Your task to perform on an android device: See recent photos Image 0: 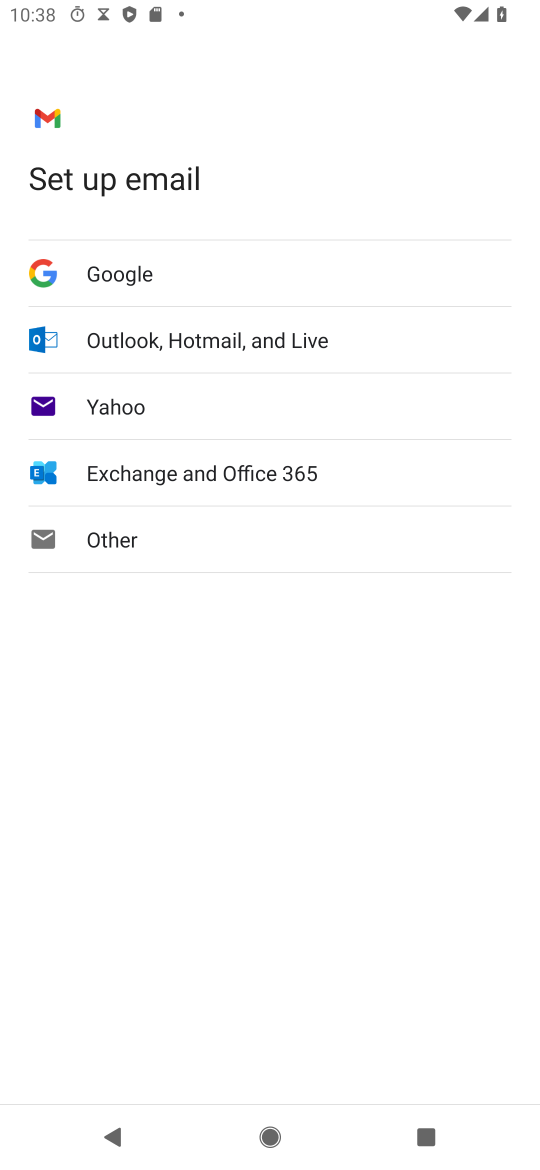
Step 0: press back button
Your task to perform on an android device: See recent photos Image 1: 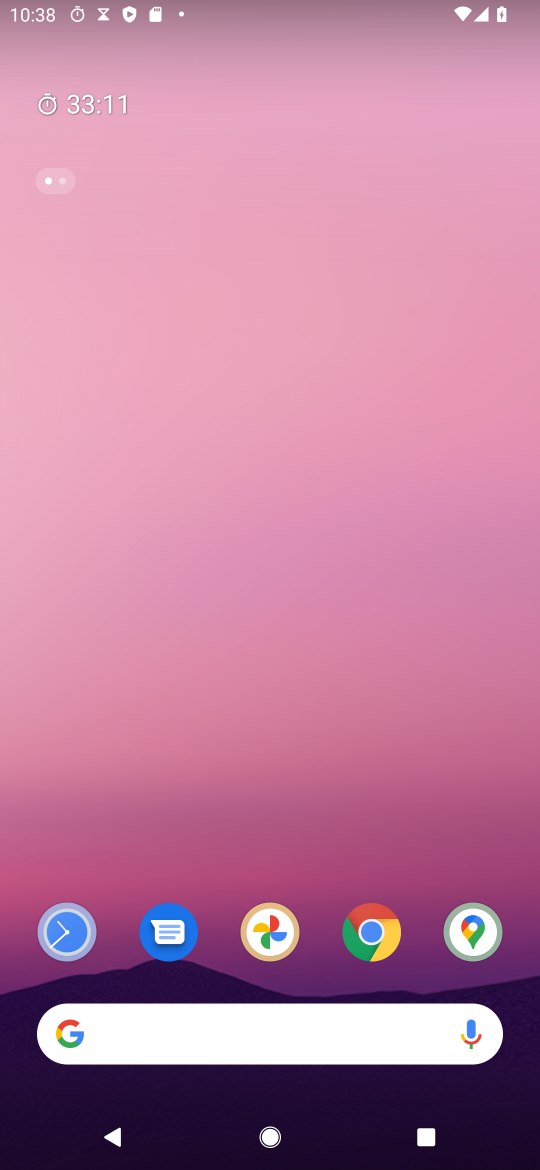
Step 1: click (280, 927)
Your task to perform on an android device: See recent photos Image 2: 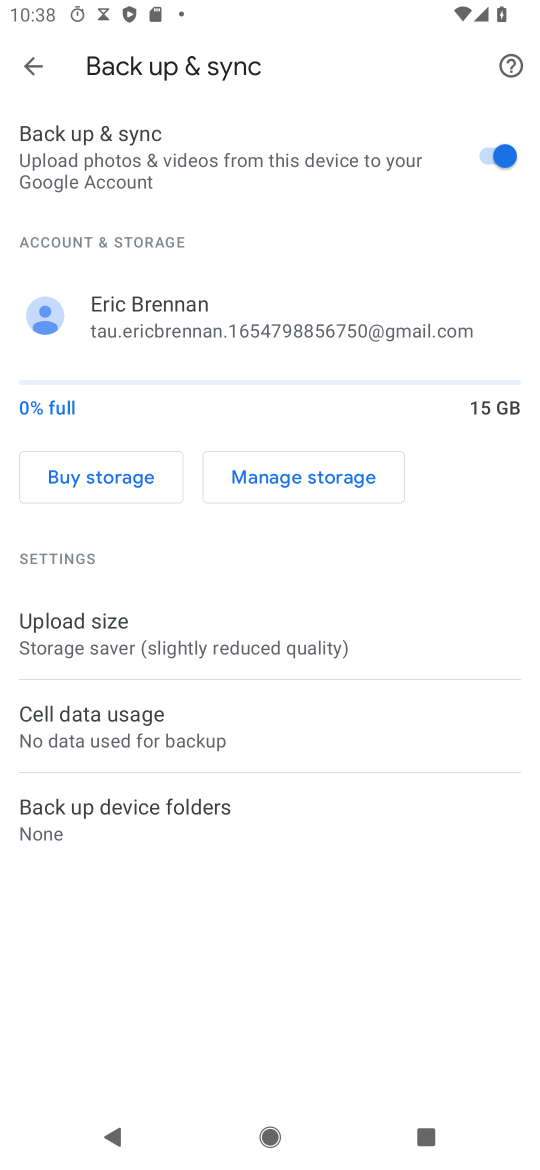
Step 2: click (39, 64)
Your task to perform on an android device: See recent photos Image 3: 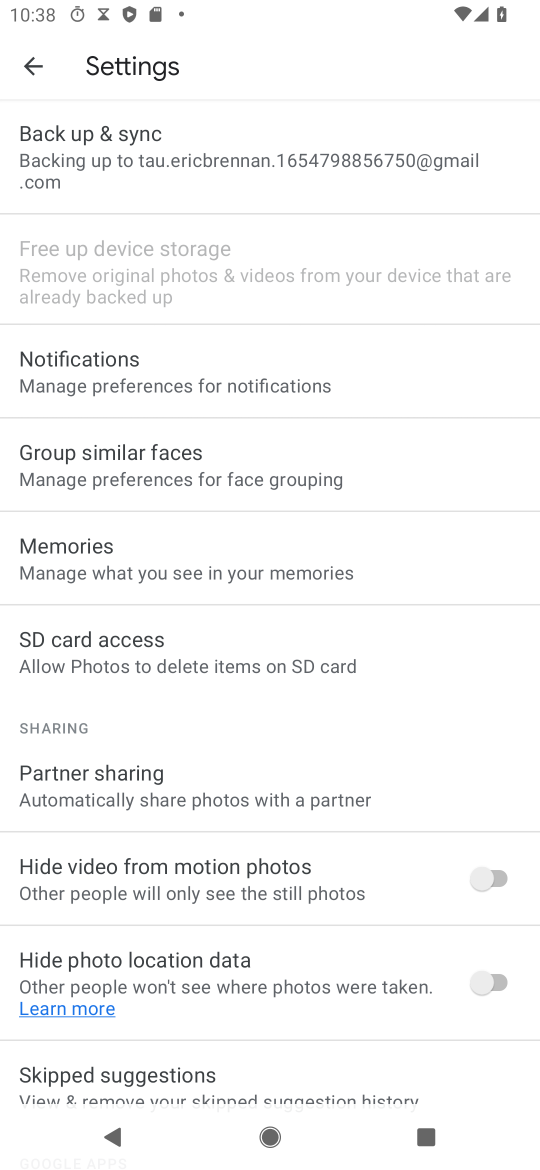
Step 3: click (45, 67)
Your task to perform on an android device: See recent photos Image 4: 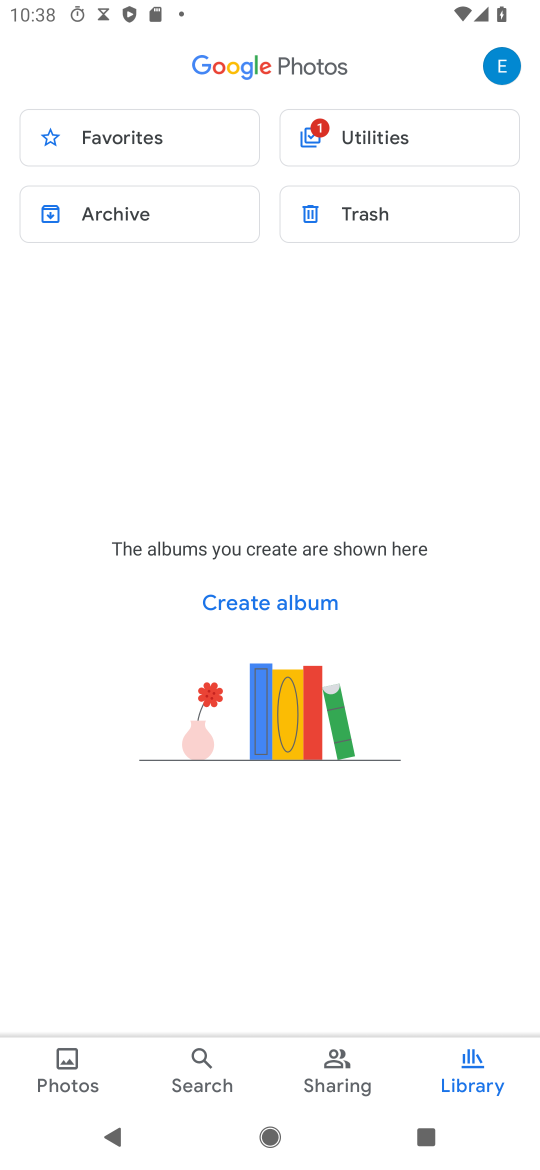
Step 4: click (84, 1075)
Your task to perform on an android device: See recent photos Image 5: 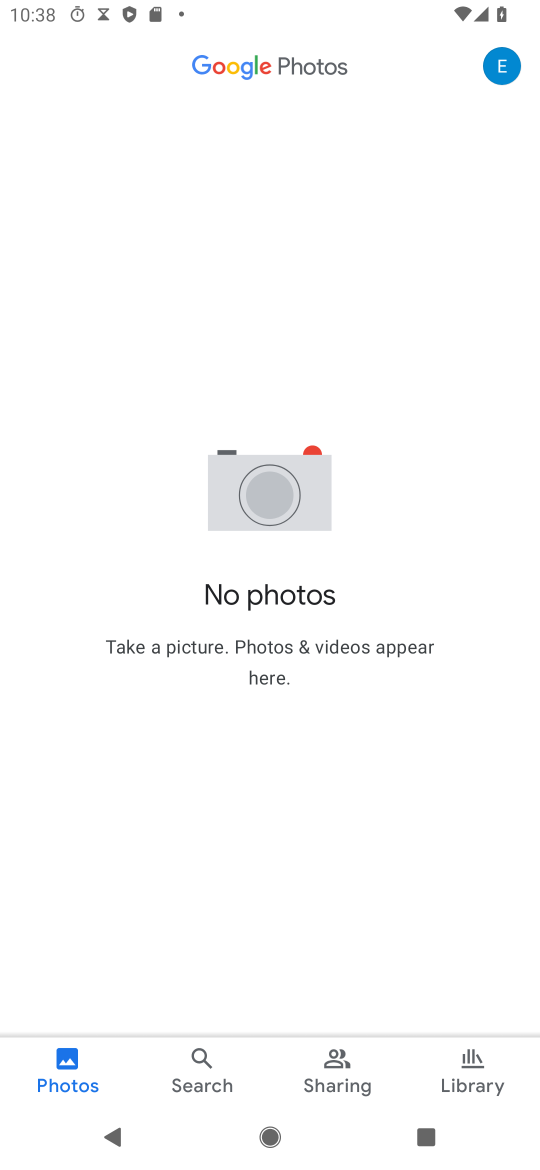
Step 5: task complete